Your task to perform on an android device: Set the phone to "Do not disturb". Image 0: 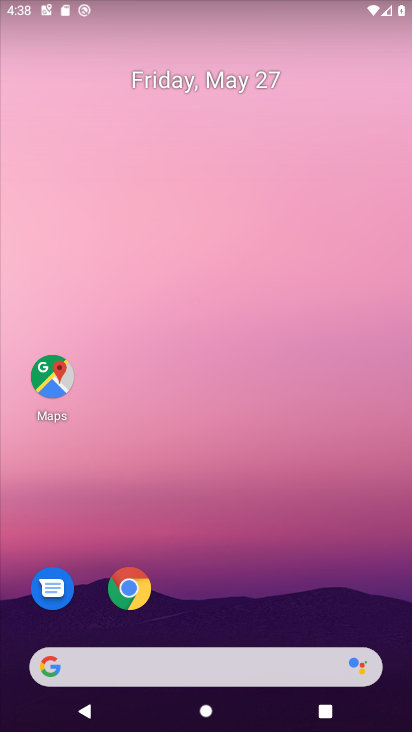
Step 0: drag from (214, 11) to (198, 670)
Your task to perform on an android device: Set the phone to "Do not disturb". Image 1: 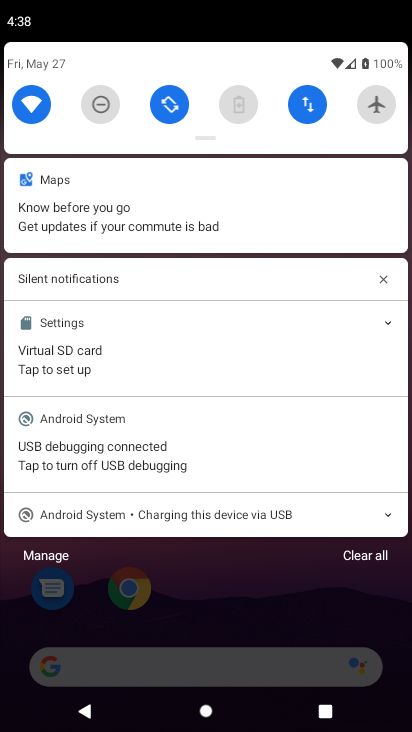
Step 1: drag from (205, 140) to (224, 619)
Your task to perform on an android device: Set the phone to "Do not disturb". Image 2: 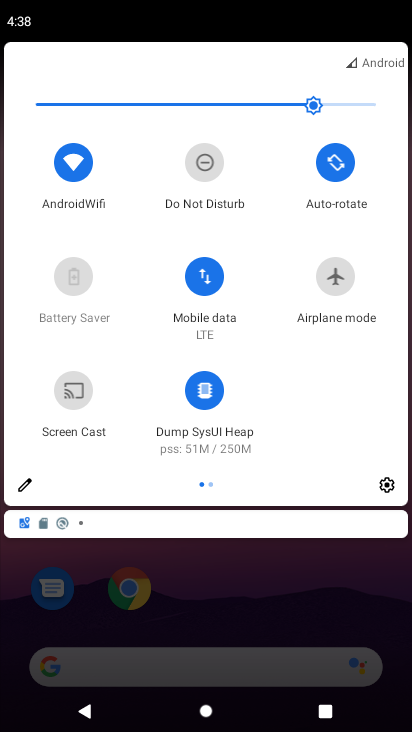
Step 2: click (202, 168)
Your task to perform on an android device: Set the phone to "Do not disturb". Image 3: 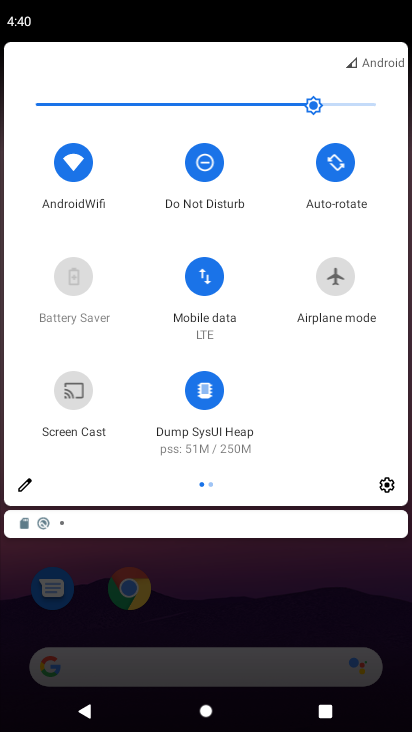
Step 3: task complete